Your task to perform on an android device: Open the stopwatch Image 0: 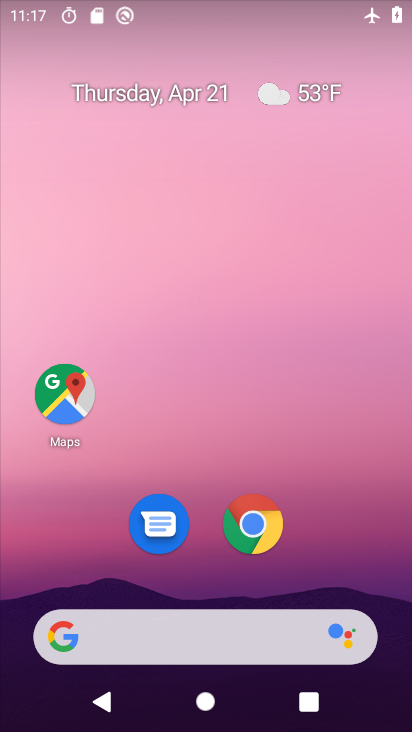
Step 0: drag from (330, 539) to (351, 60)
Your task to perform on an android device: Open the stopwatch Image 1: 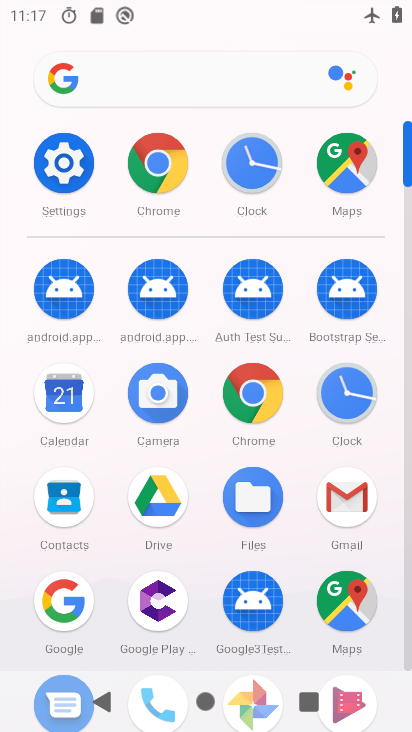
Step 1: click (246, 169)
Your task to perform on an android device: Open the stopwatch Image 2: 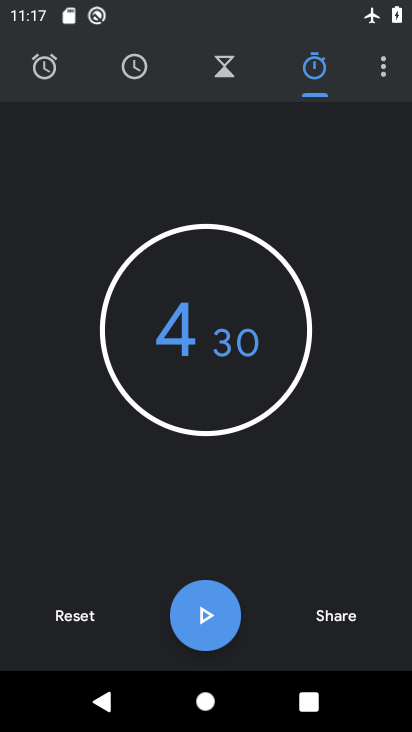
Step 2: click (313, 76)
Your task to perform on an android device: Open the stopwatch Image 3: 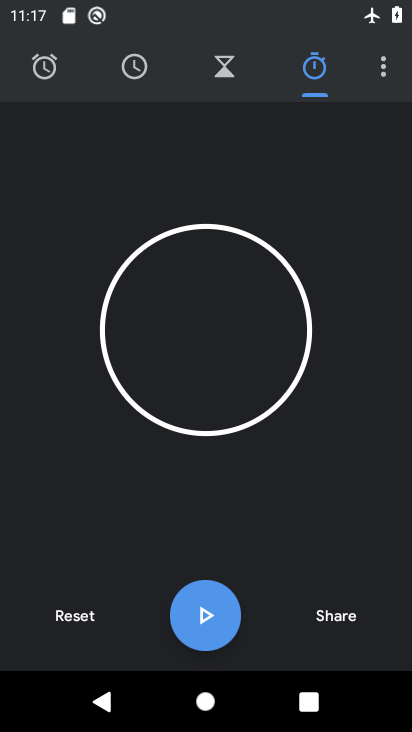
Step 3: task complete